Your task to perform on an android device: Go to CNN.com Image 0: 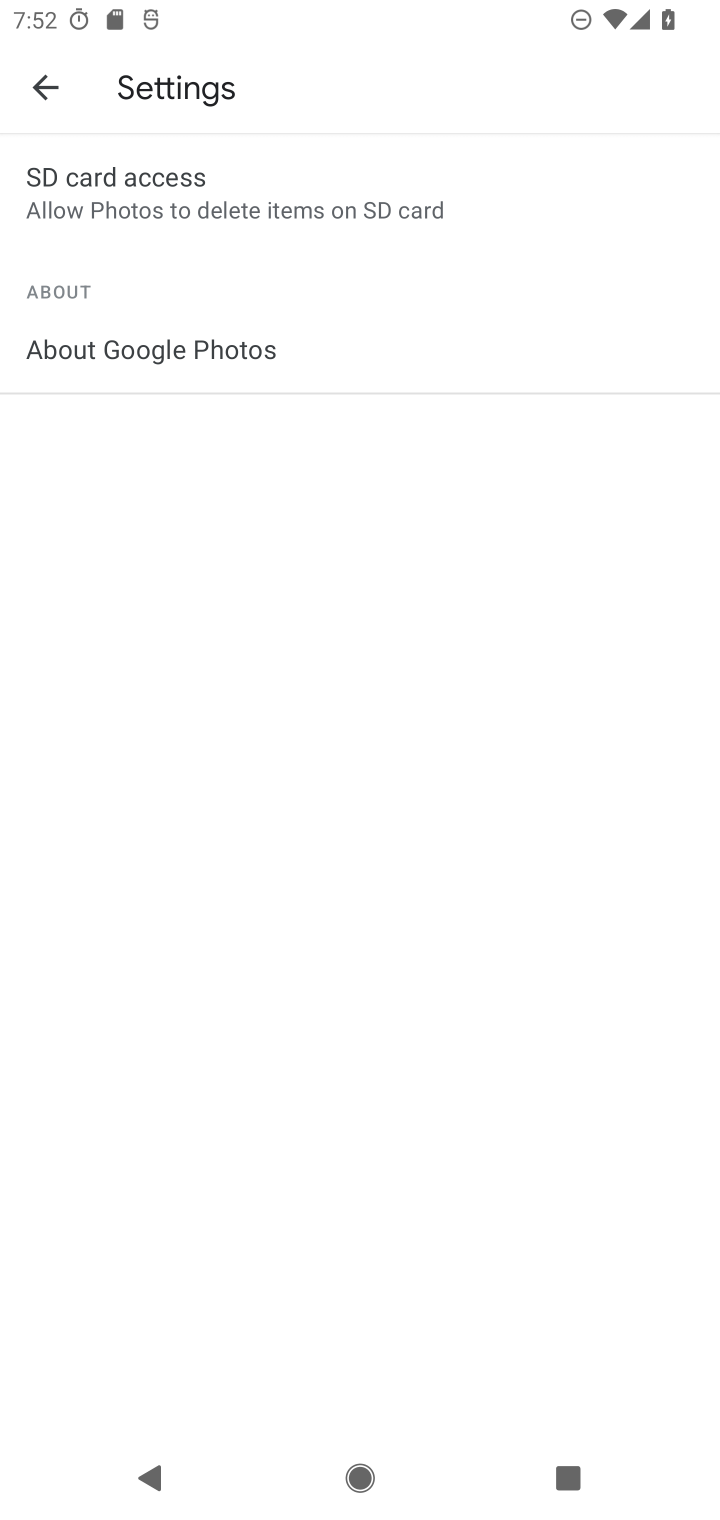
Step 0: press home button
Your task to perform on an android device: Go to CNN.com Image 1: 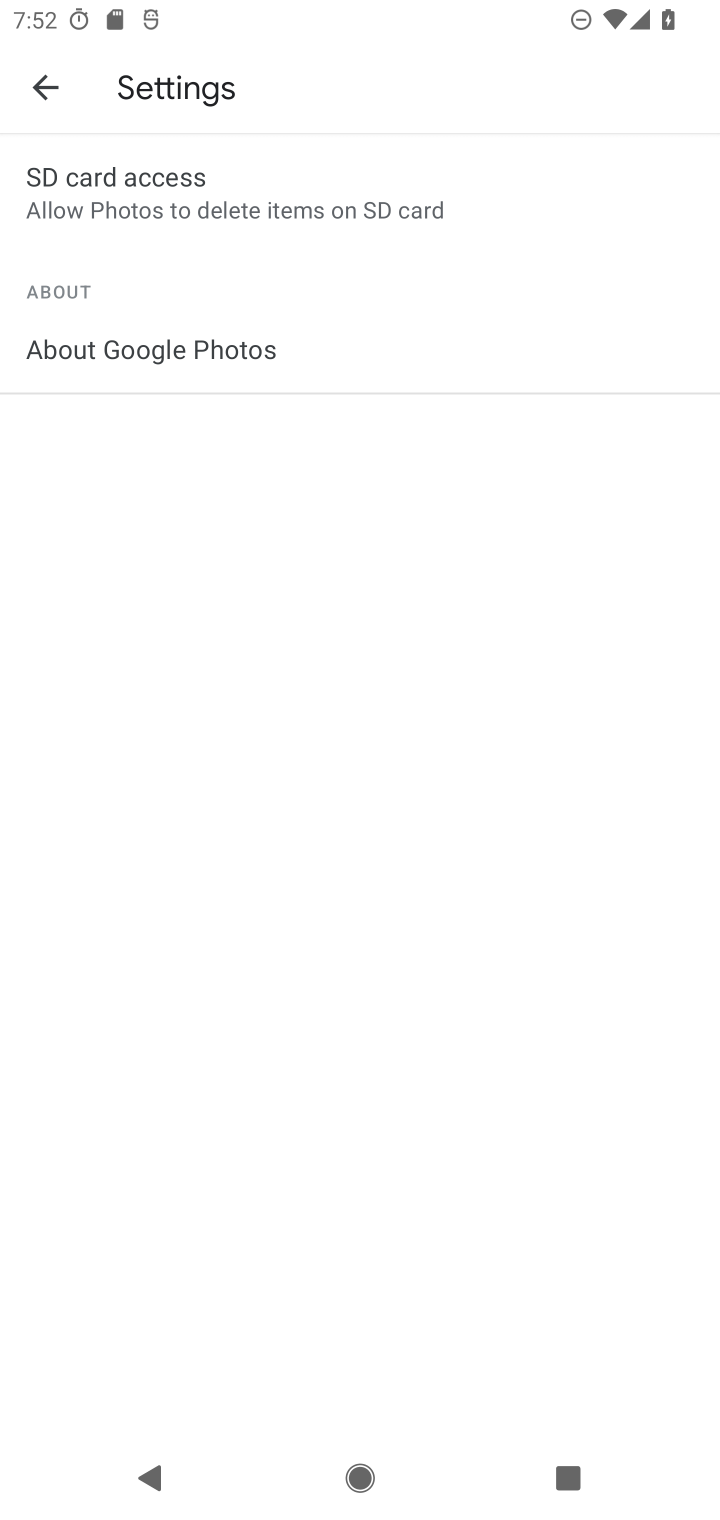
Step 1: press home button
Your task to perform on an android device: Go to CNN.com Image 2: 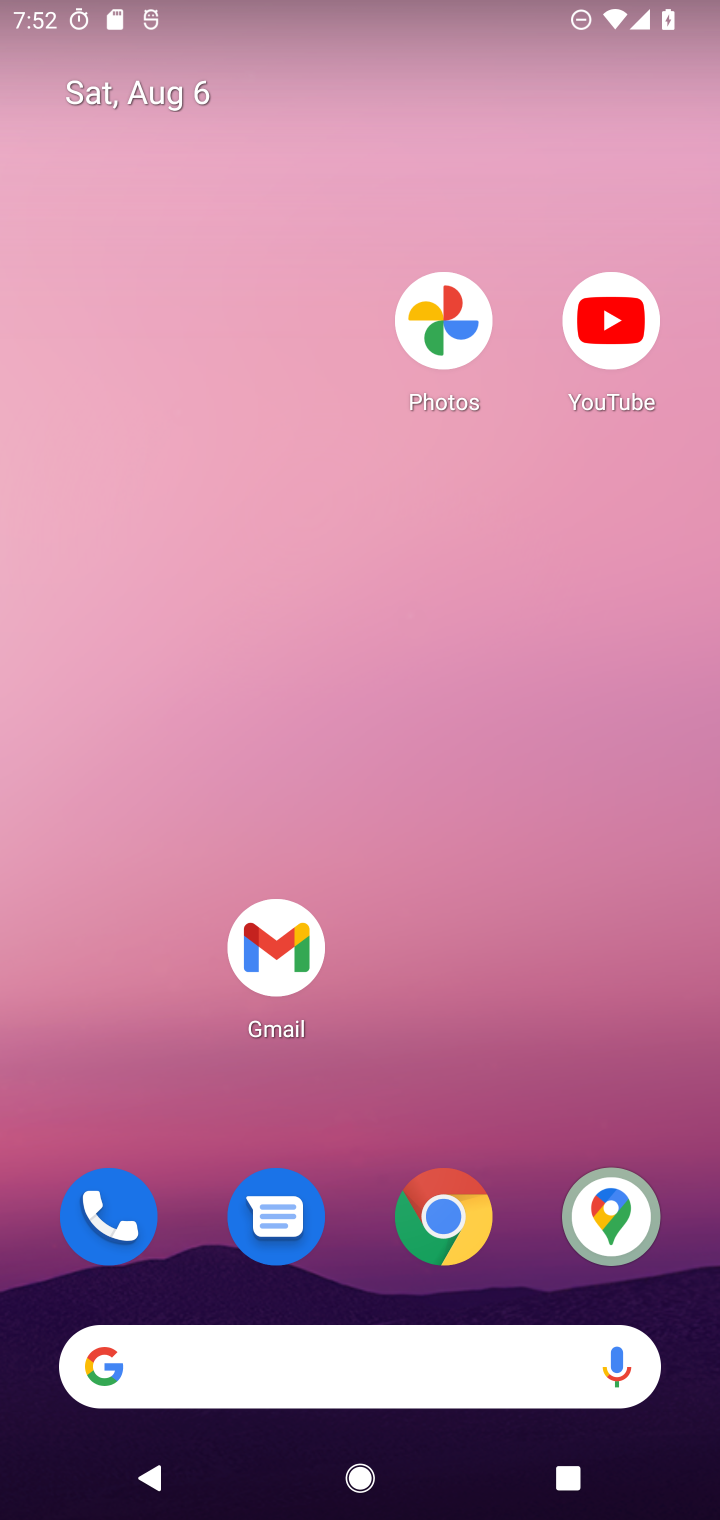
Step 2: drag from (591, 1085) to (463, 274)
Your task to perform on an android device: Go to CNN.com Image 3: 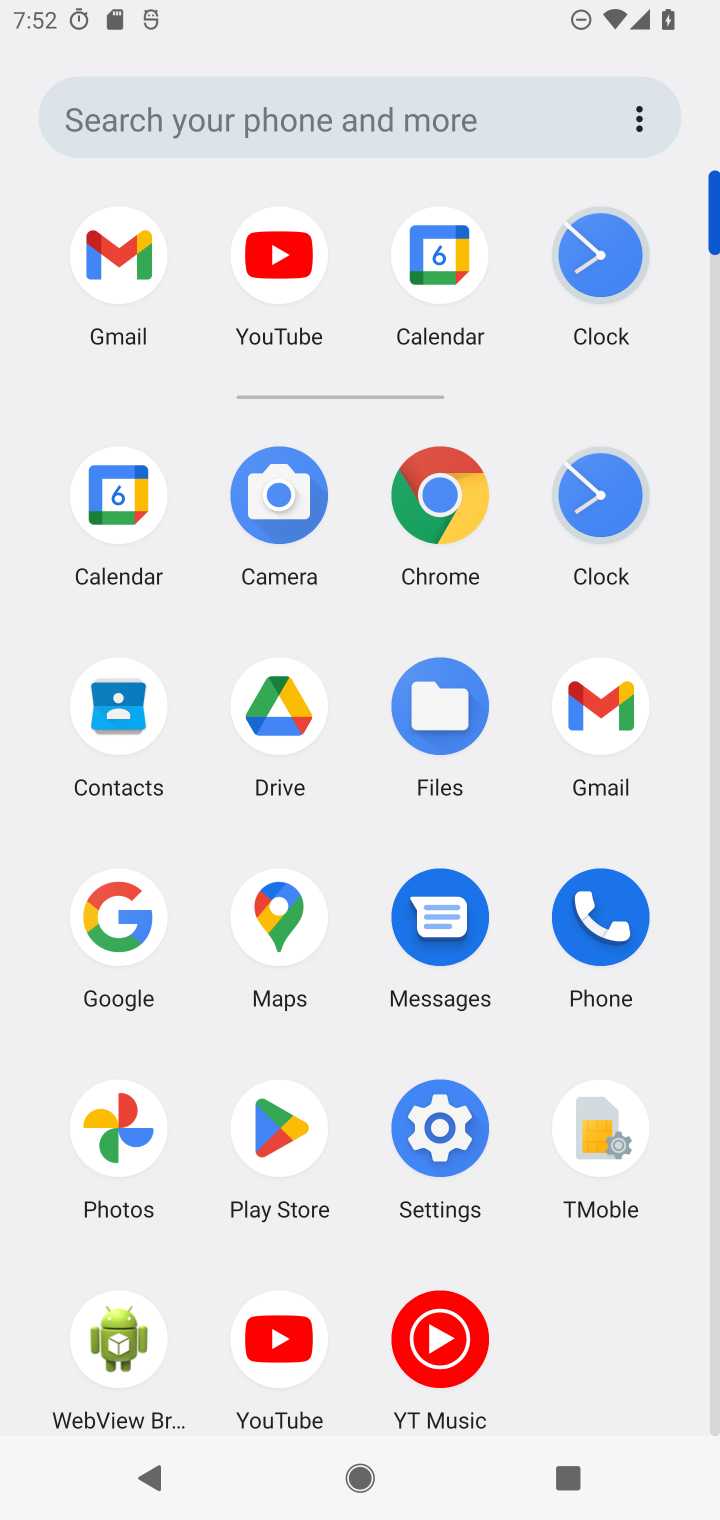
Step 3: click (432, 499)
Your task to perform on an android device: Go to CNN.com Image 4: 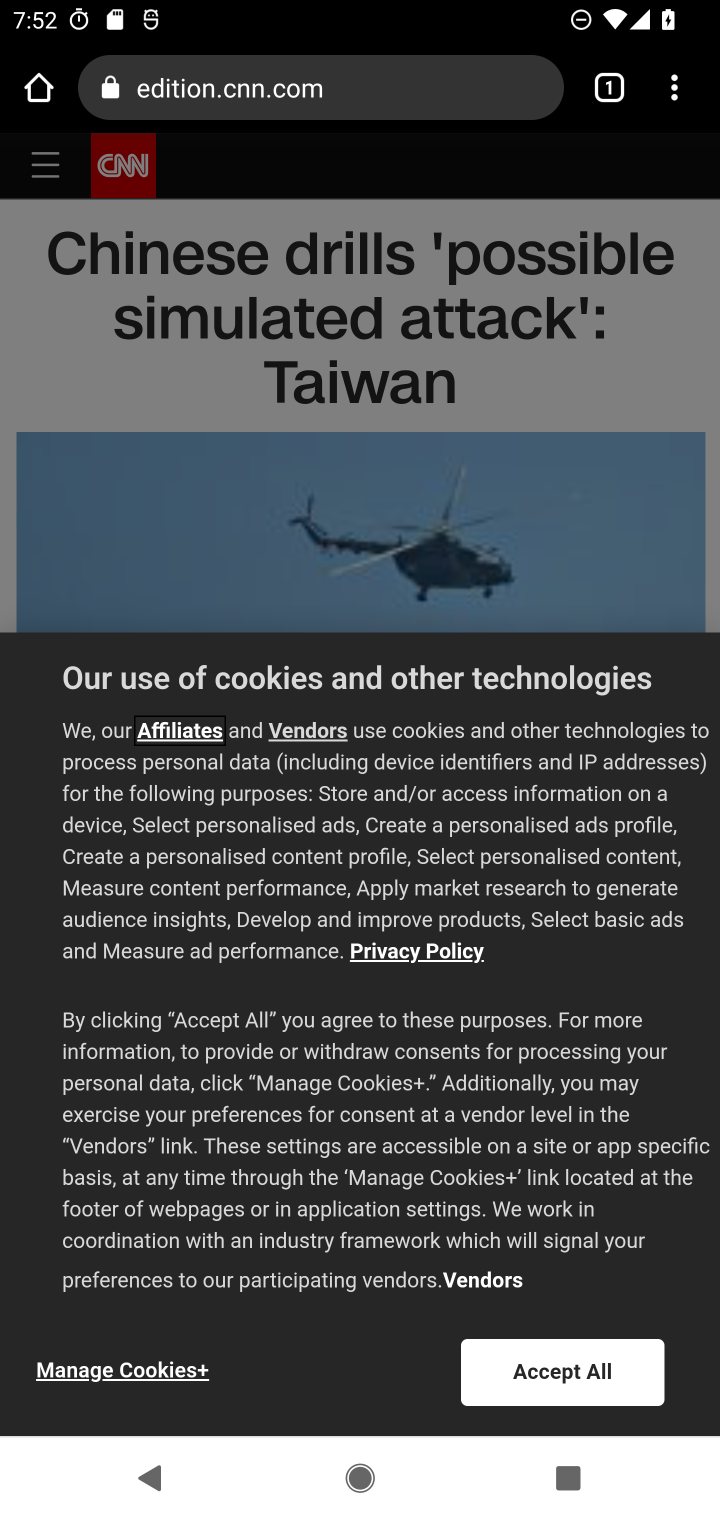
Step 4: task complete